Your task to perform on an android device: turn off translation in the chrome app Image 0: 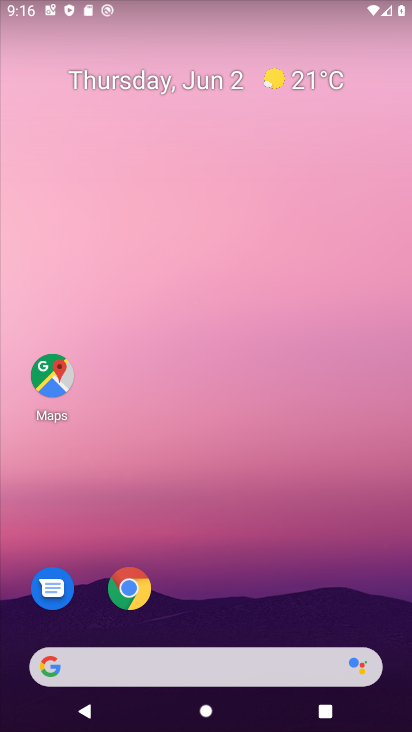
Step 0: click (143, 596)
Your task to perform on an android device: turn off translation in the chrome app Image 1: 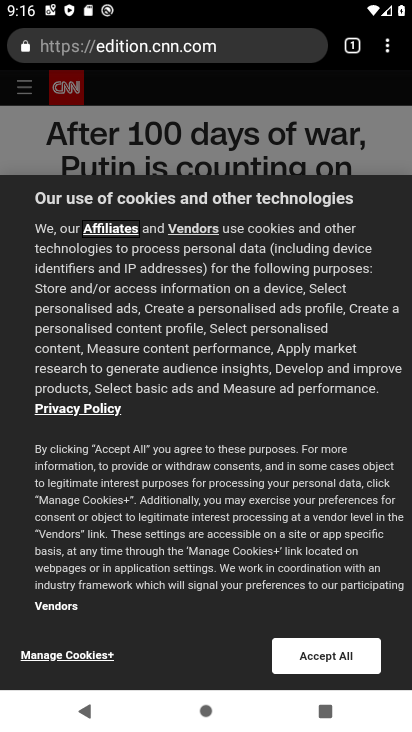
Step 1: click (385, 39)
Your task to perform on an android device: turn off translation in the chrome app Image 2: 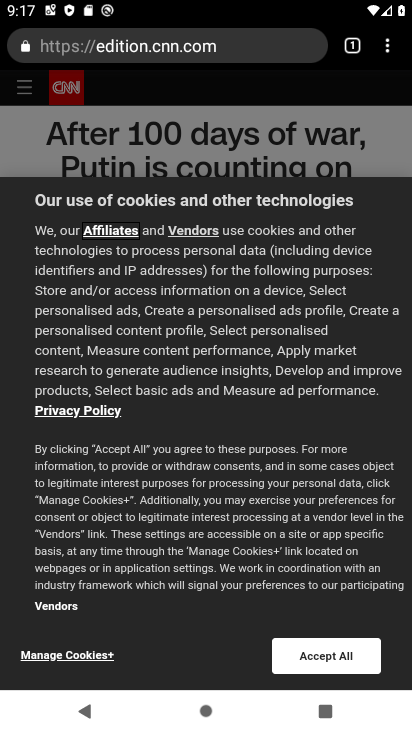
Step 2: drag from (376, 43) to (240, 503)
Your task to perform on an android device: turn off translation in the chrome app Image 3: 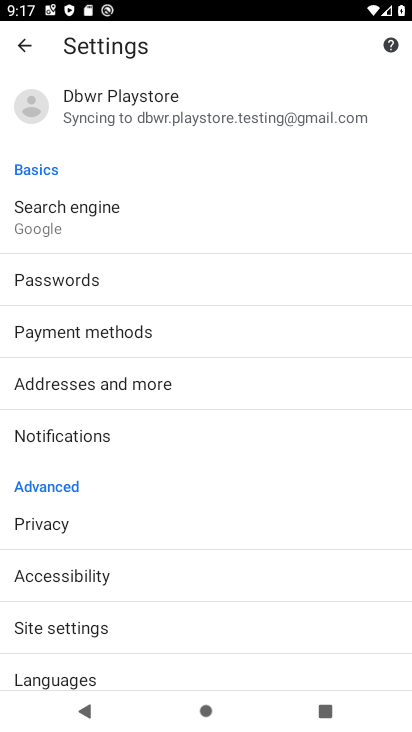
Step 3: click (80, 673)
Your task to perform on an android device: turn off translation in the chrome app Image 4: 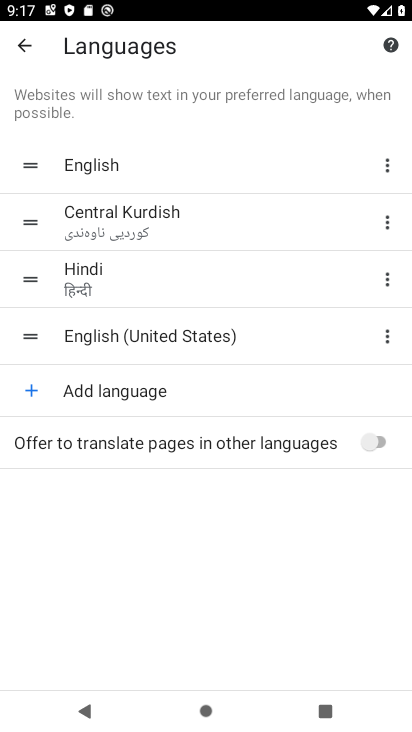
Step 4: task complete